Your task to perform on an android device: Go to location settings Image 0: 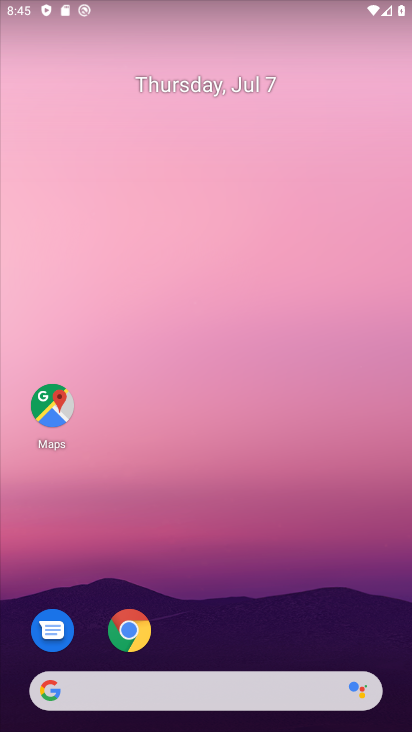
Step 0: drag from (184, 610) to (183, 200)
Your task to perform on an android device: Go to location settings Image 1: 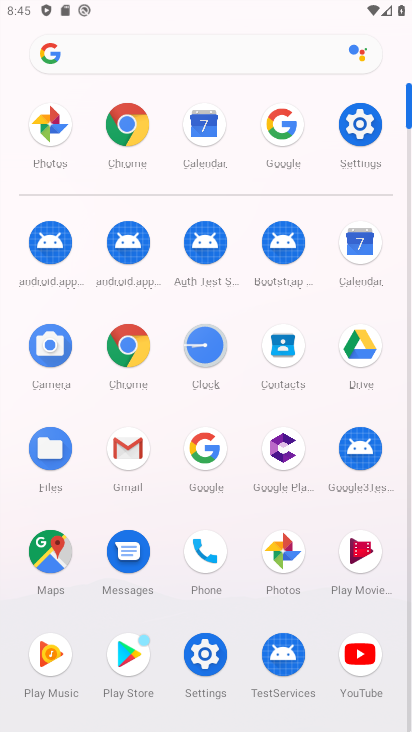
Step 1: click (356, 133)
Your task to perform on an android device: Go to location settings Image 2: 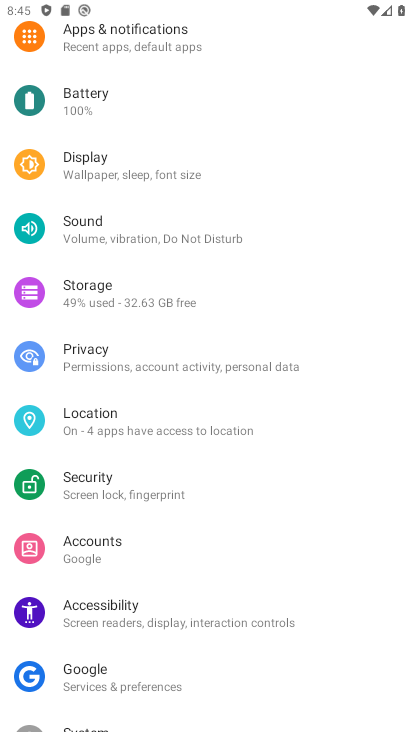
Step 2: click (123, 431)
Your task to perform on an android device: Go to location settings Image 3: 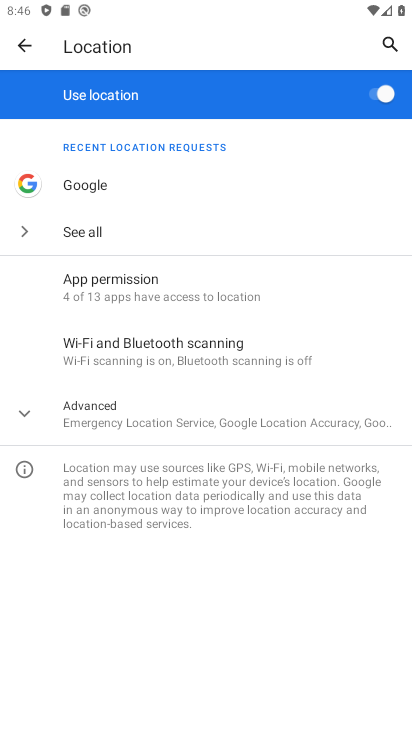
Step 3: task complete